Your task to perform on an android device: Clear the shopping cart on newegg.com. Search for jbl charge 4 on newegg.com, select the first entry, and add it to the cart. Image 0: 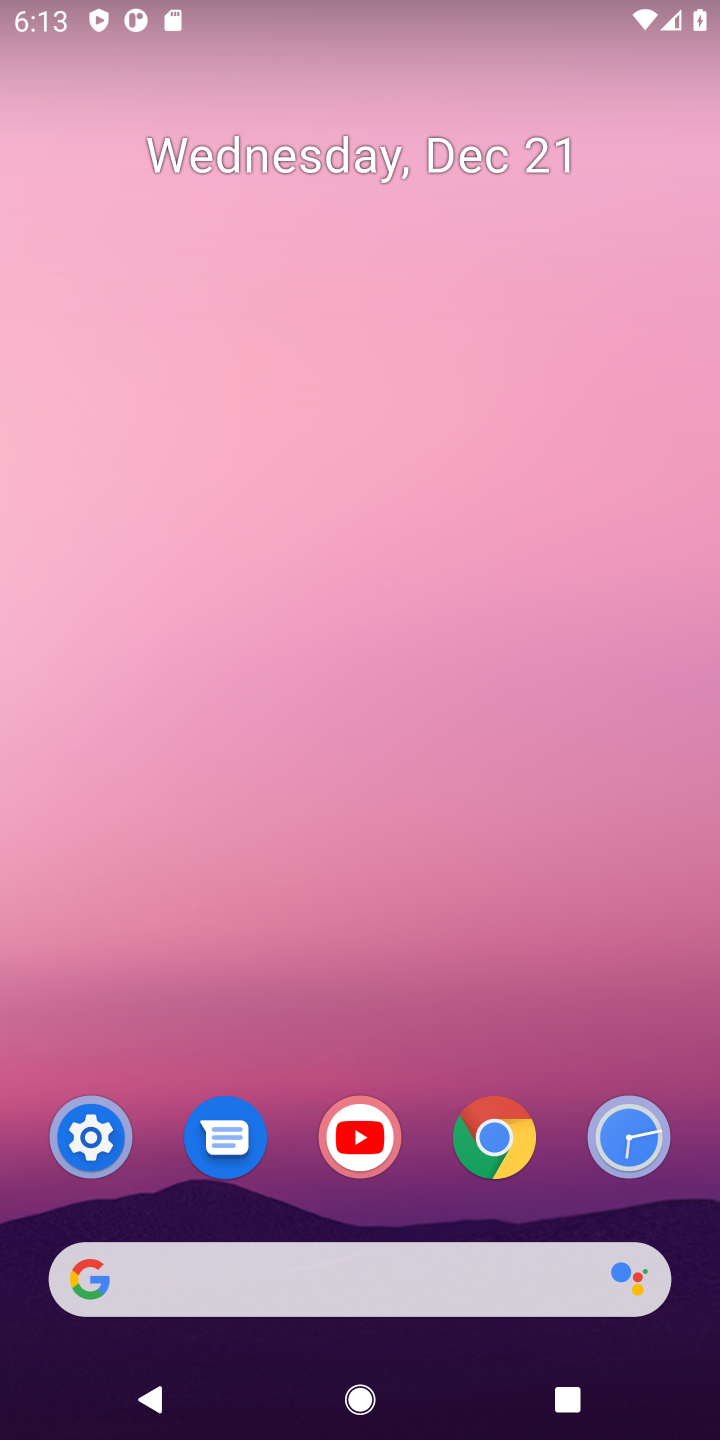
Step 0: click (486, 1142)
Your task to perform on an android device: Clear the shopping cart on newegg.com. Search for jbl charge 4 on newegg.com, select the first entry, and add it to the cart. Image 1: 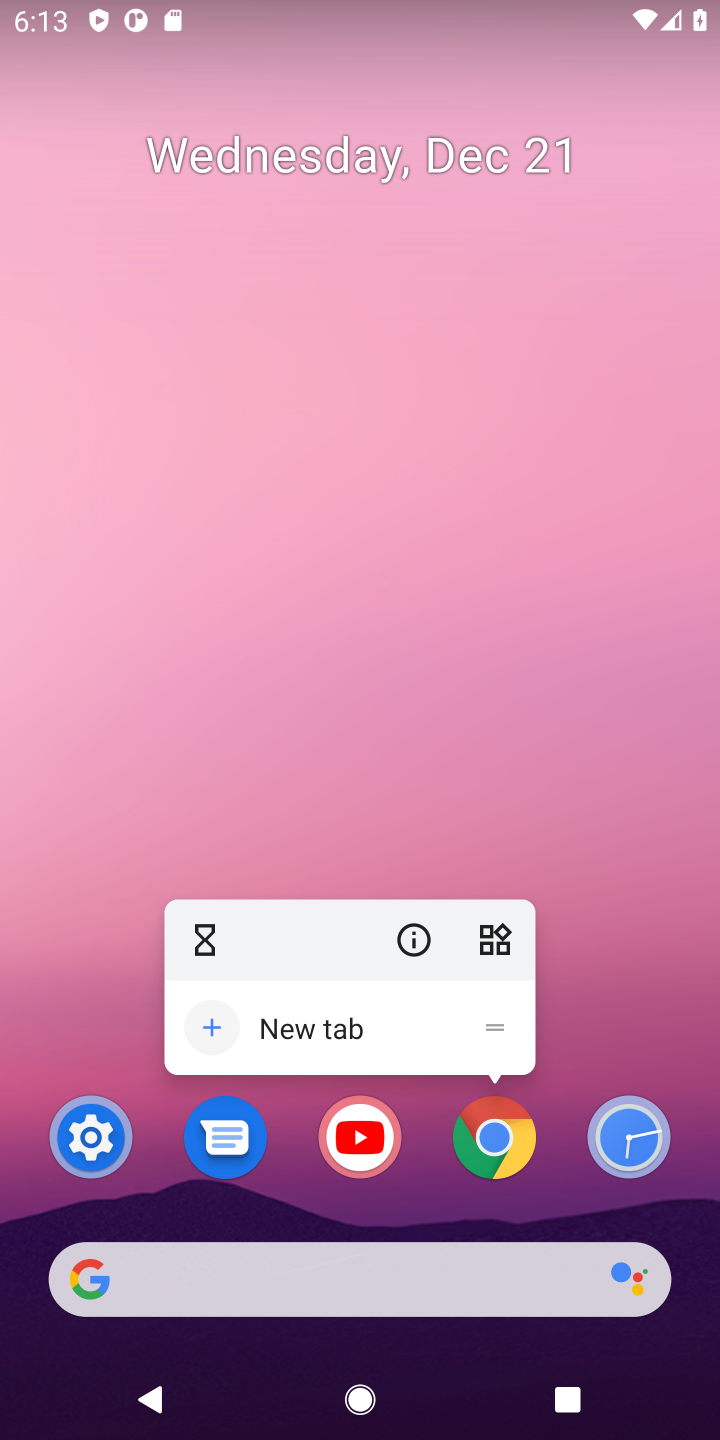
Step 1: click (486, 1142)
Your task to perform on an android device: Clear the shopping cart on newegg.com. Search for jbl charge 4 on newegg.com, select the first entry, and add it to the cart. Image 2: 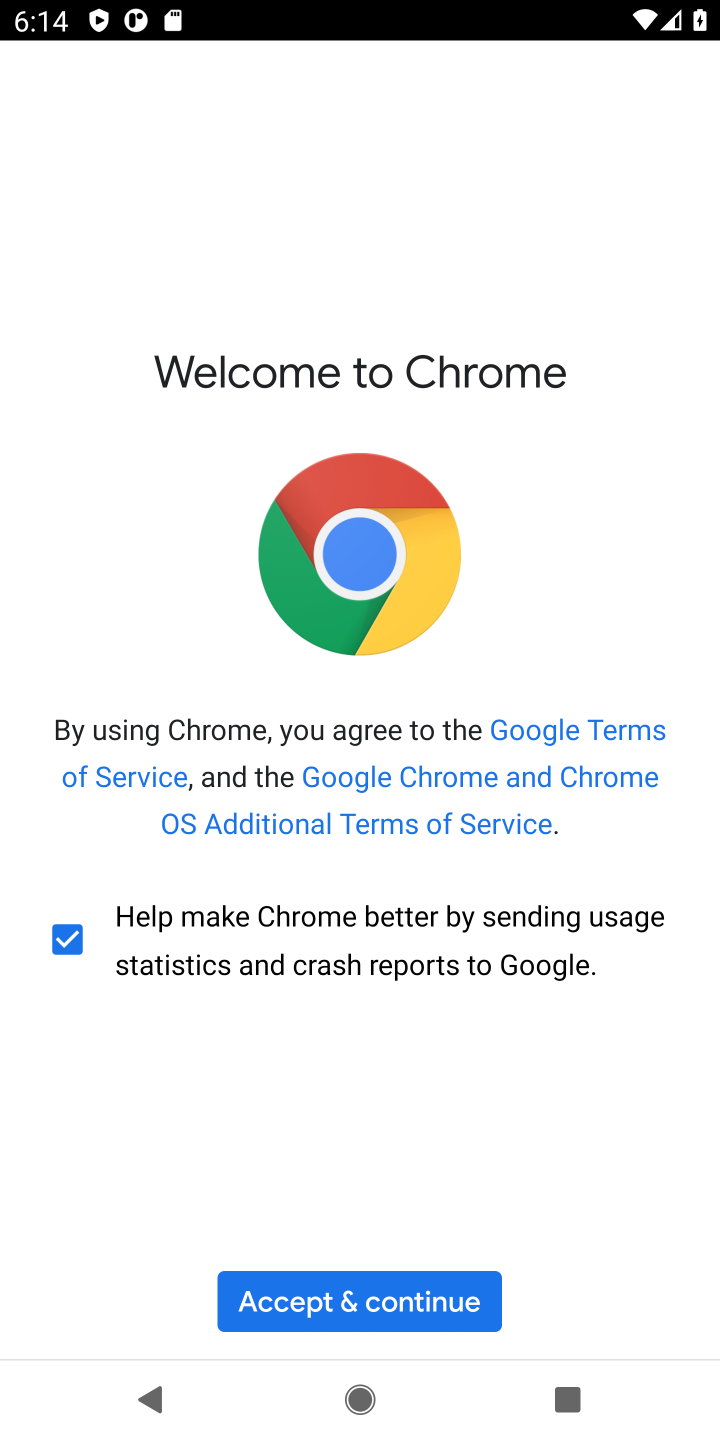
Step 2: click (362, 1305)
Your task to perform on an android device: Clear the shopping cart on newegg.com. Search for jbl charge 4 on newegg.com, select the first entry, and add it to the cart. Image 3: 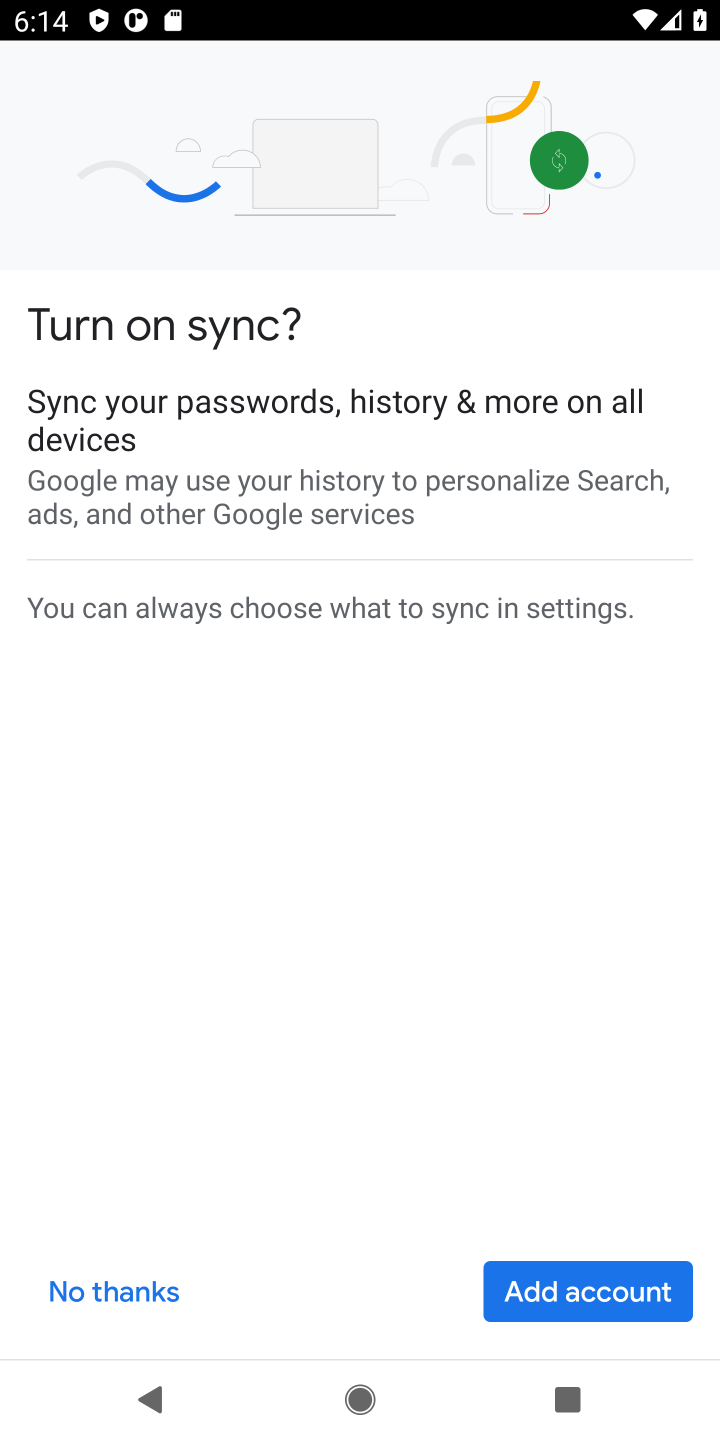
Step 3: click (79, 1298)
Your task to perform on an android device: Clear the shopping cart on newegg.com. Search for jbl charge 4 on newegg.com, select the first entry, and add it to the cart. Image 4: 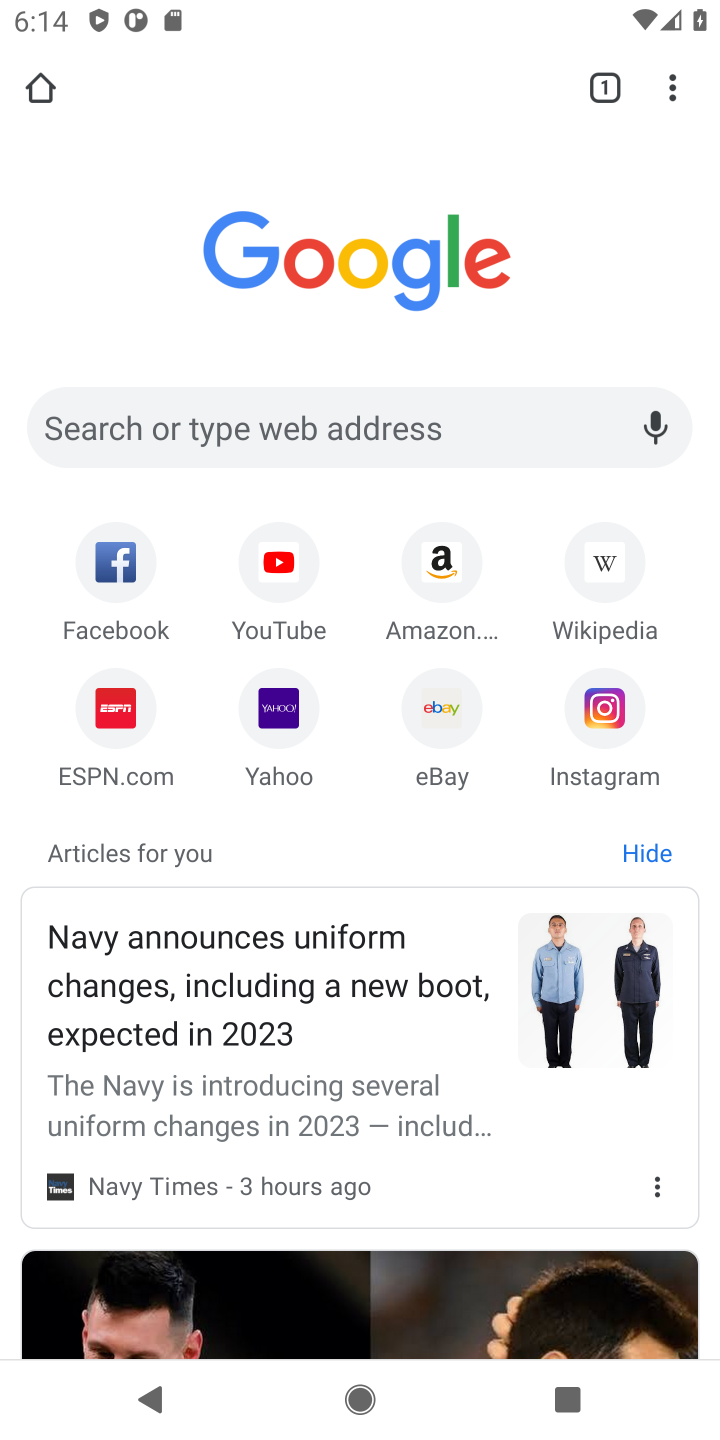
Step 4: click (241, 431)
Your task to perform on an android device: Clear the shopping cart on newegg.com. Search for jbl charge 4 on newegg.com, select the first entry, and add it to the cart. Image 5: 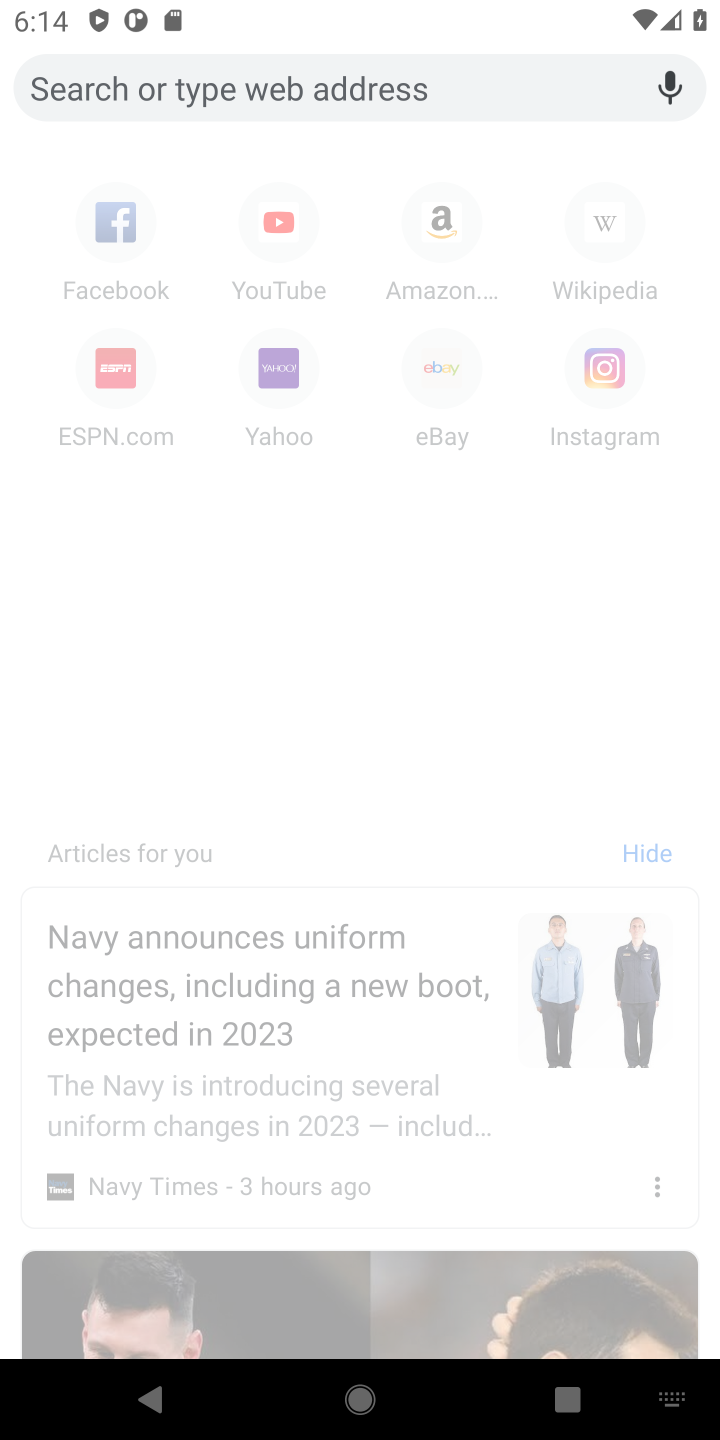
Step 5: type "newegg.com"
Your task to perform on an android device: Clear the shopping cart on newegg.com. Search for jbl charge 4 on newegg.com, select the first entry, and add it to the cart. Image 6: 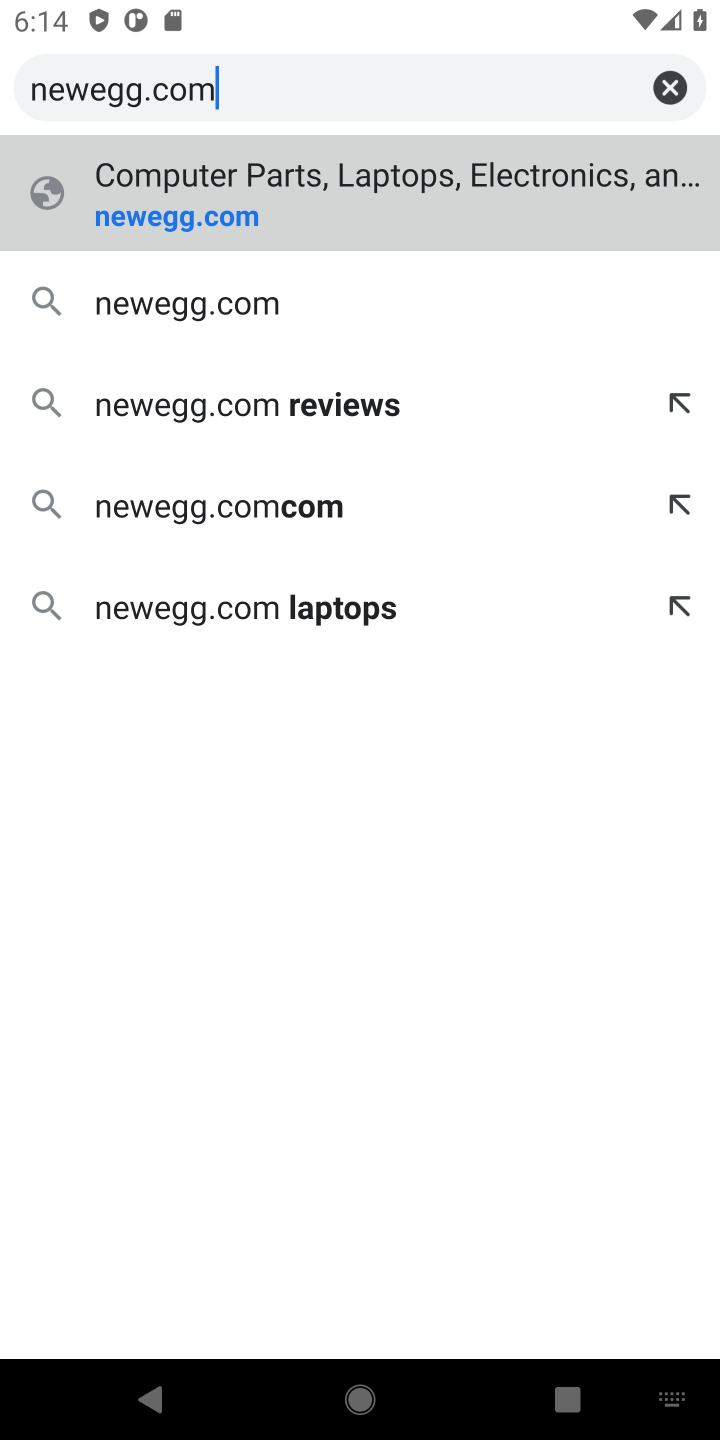
Step 6: click (205, 224)
Your task to perform on an android device: Clear the shopping cart on newegg.com. Search for jbl charge 4 on newegg.com, select the first entry, and add it to the cart. Image 7: 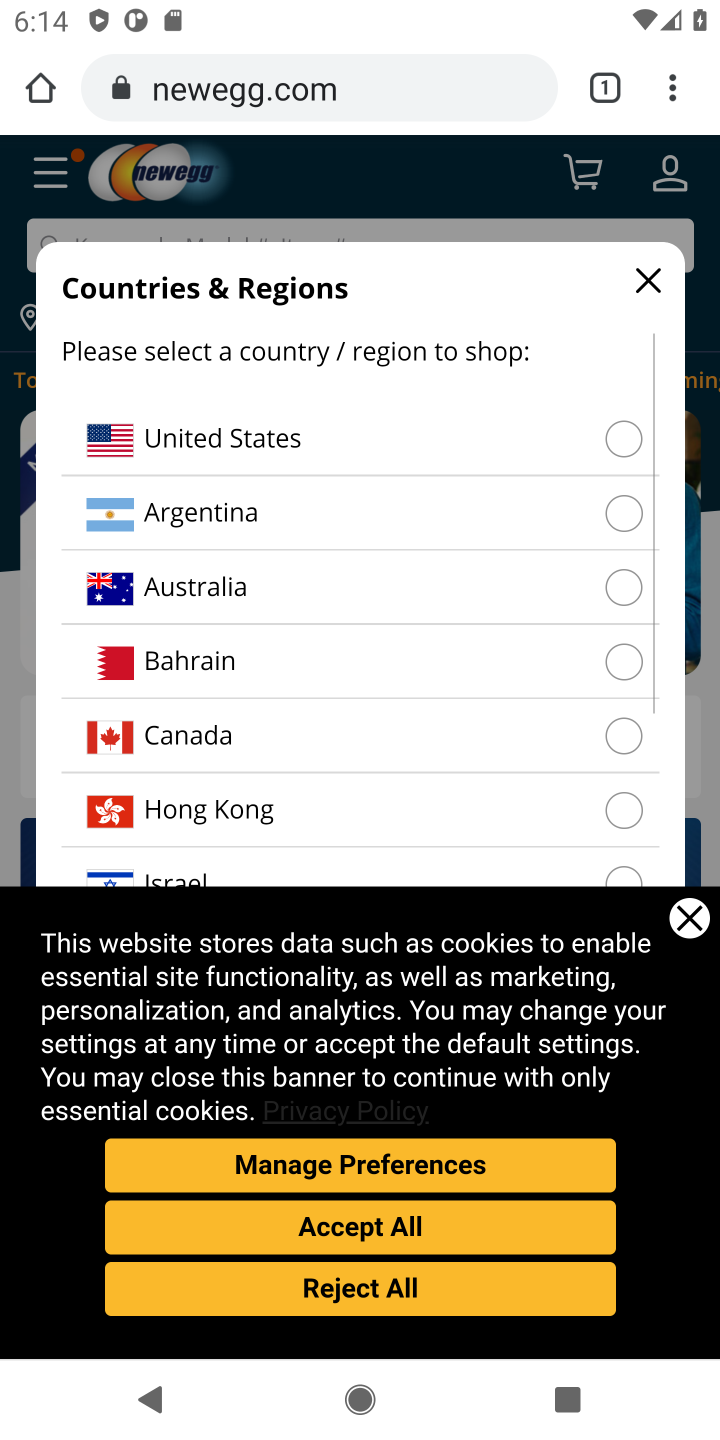
Step 7: click (691, 940)
Your task to perform on an android device: Clear the shopping cart on newegg.com. Search for jbl charge 4 on newegg.com, select the first entry, and add it to the cart. Image 8: 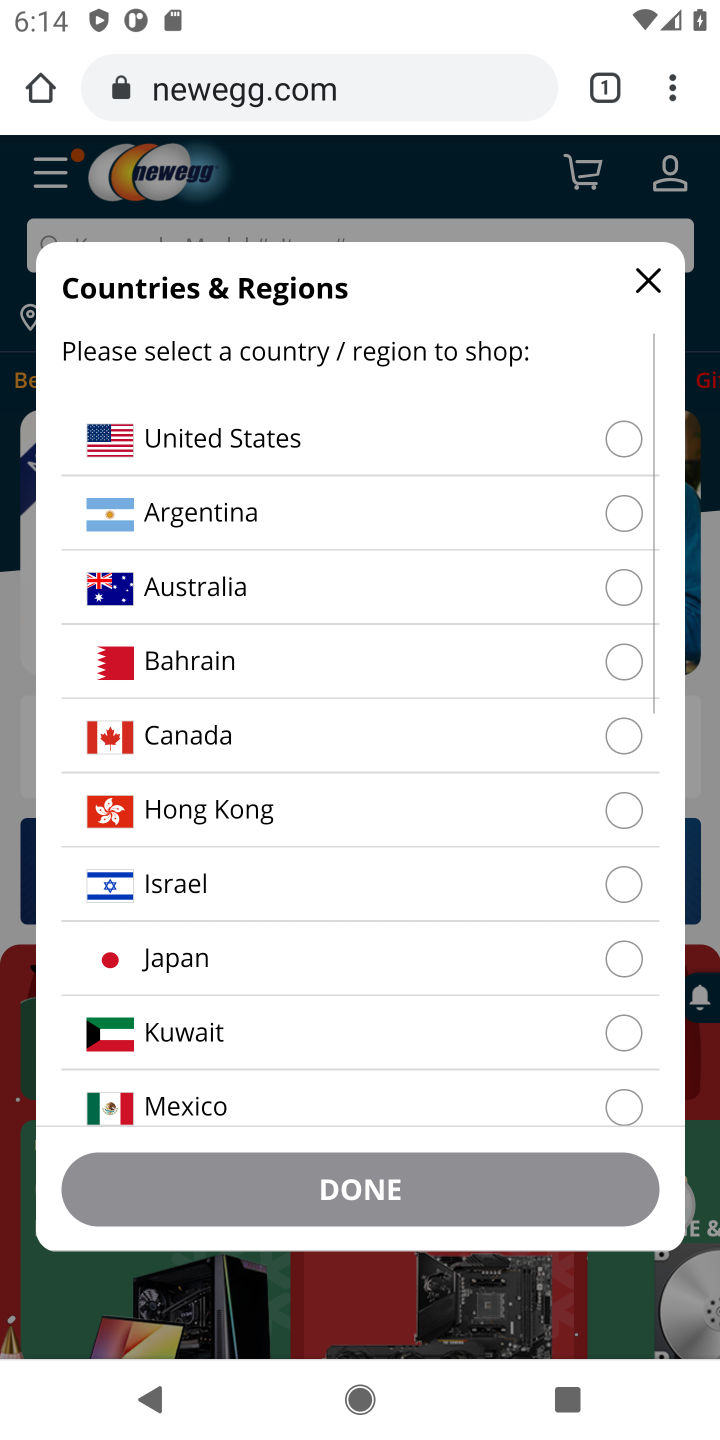
Step 8: click (162, 440)
Your task to perform on an android device: Clear the shopping cart on newegg.com. Search for jbl charge 4 on newegg.com, select the first entry, and add it to the cart. Image 9: 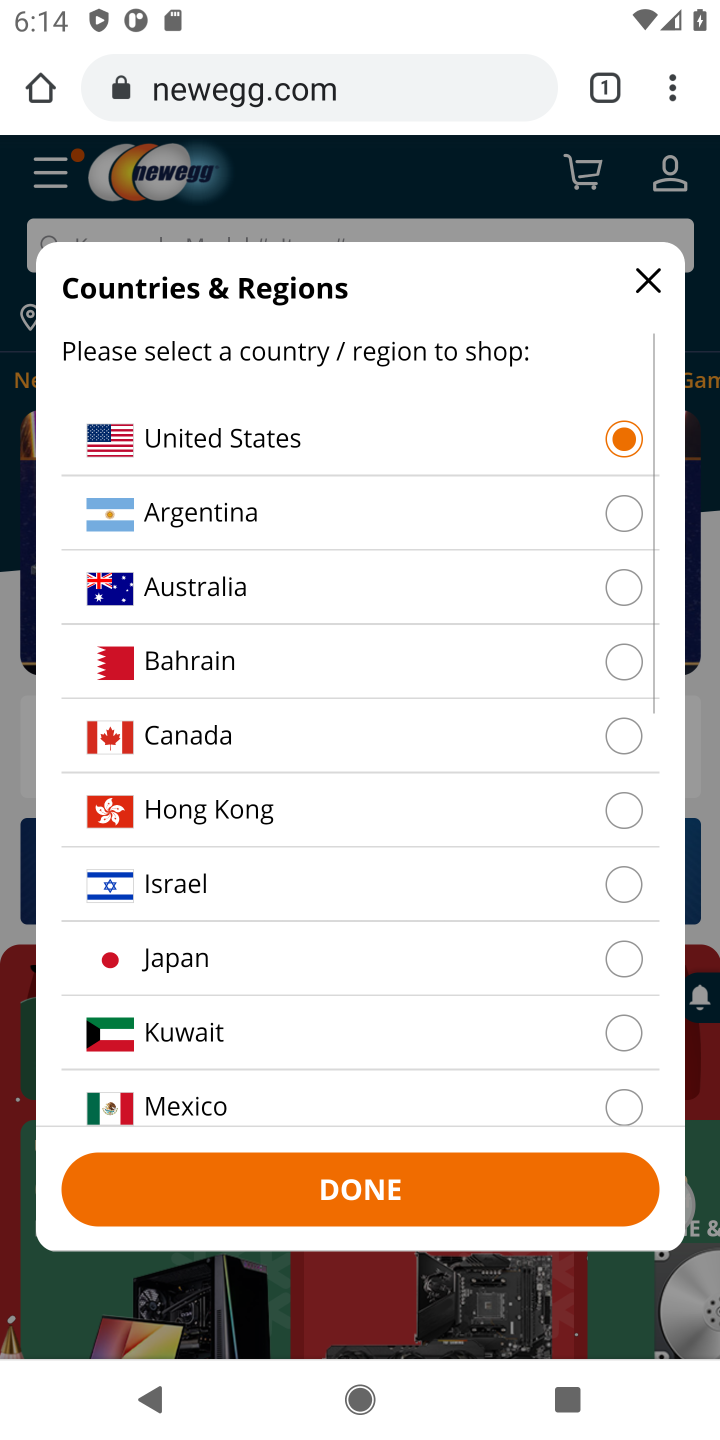
Step 9: click (323, 1189)
Your task to perform on an android device: Clear the shopping cart on newegg.com. Search for jbl charge 4 on newegg.com, select the first entry, and add it to the cart. Image 10: 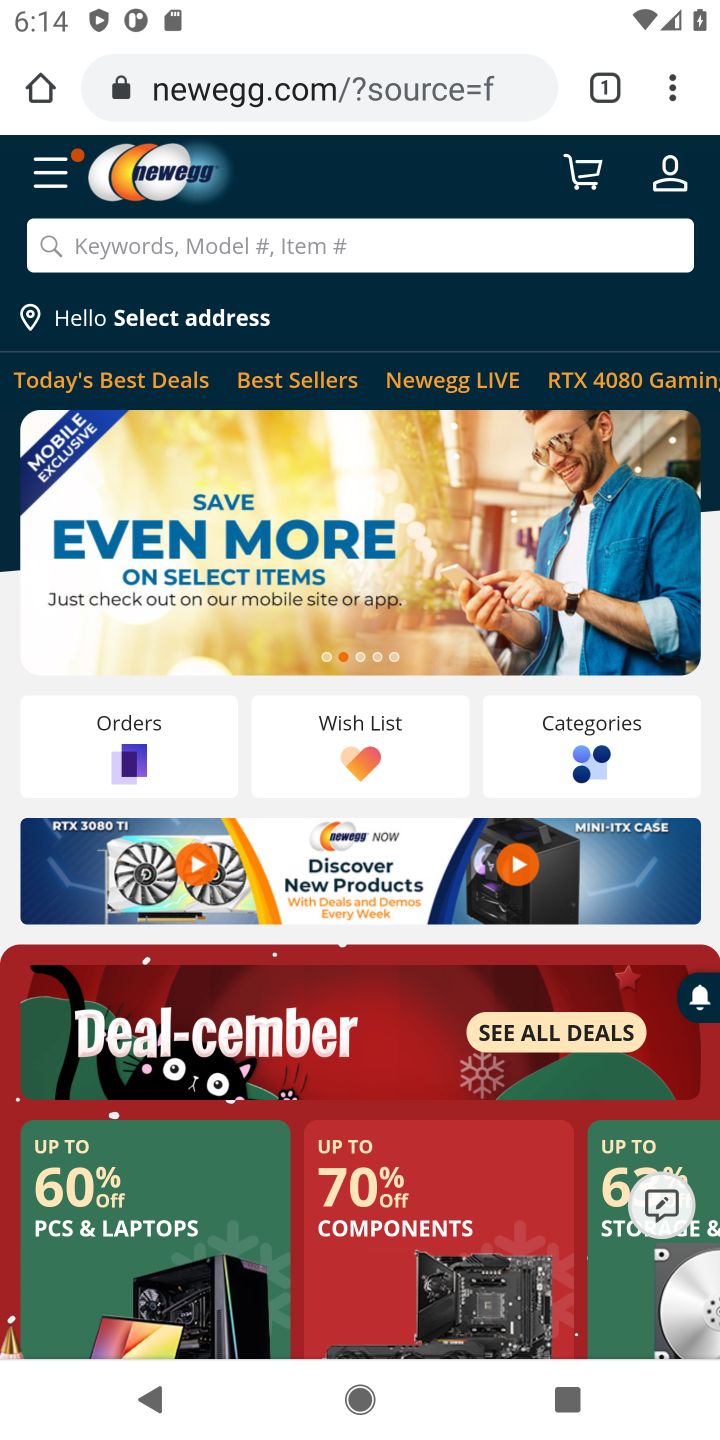
Step 10: click (589, 179)
Your task to perform on an android device: Clear the shopping cart on newegg.com. Search for jbl charge 4 on newegg.com, select the first entry, and add it to the cart. Image 11: 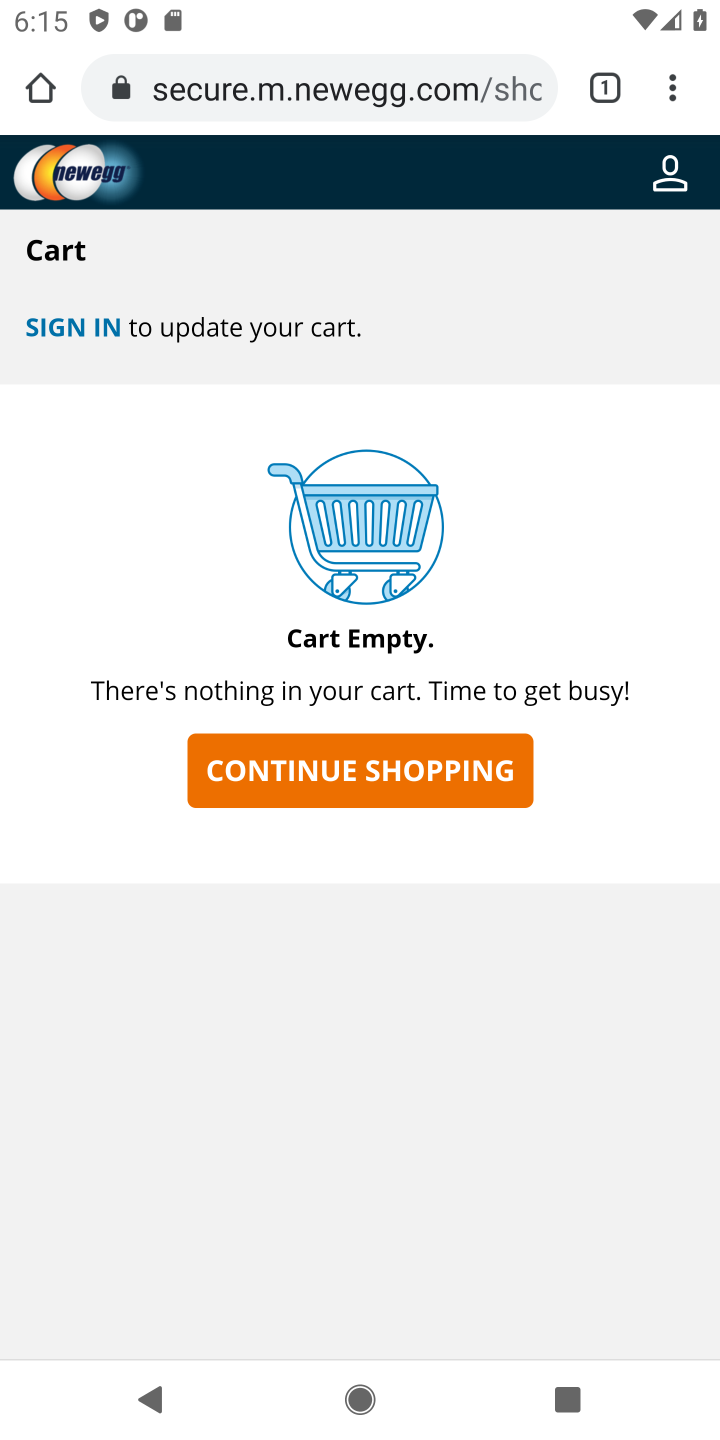
Step 11: click (302, 798)
Your task to perform on an android device: Clear the shopping cart on newegg.com. Search for jbl charge 4 on newegg.com, select the first entry, and add it to the cart. Image 12: 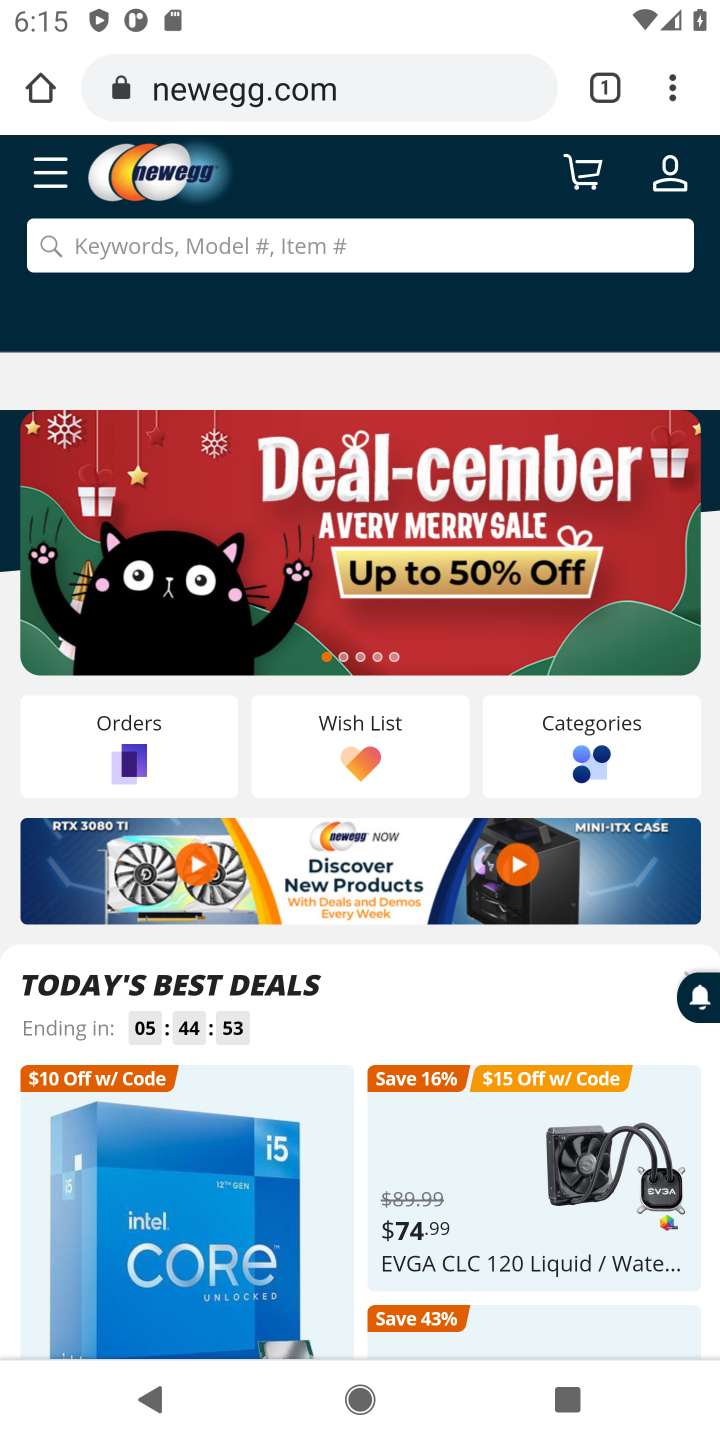
Step 12: click (176, 252)
Your task to perform on an android device: Clear the shopping cart on newegg.com. Search for jbl charge 4 on newegg.com, select the first entry, and add it to the cart. Image 13: 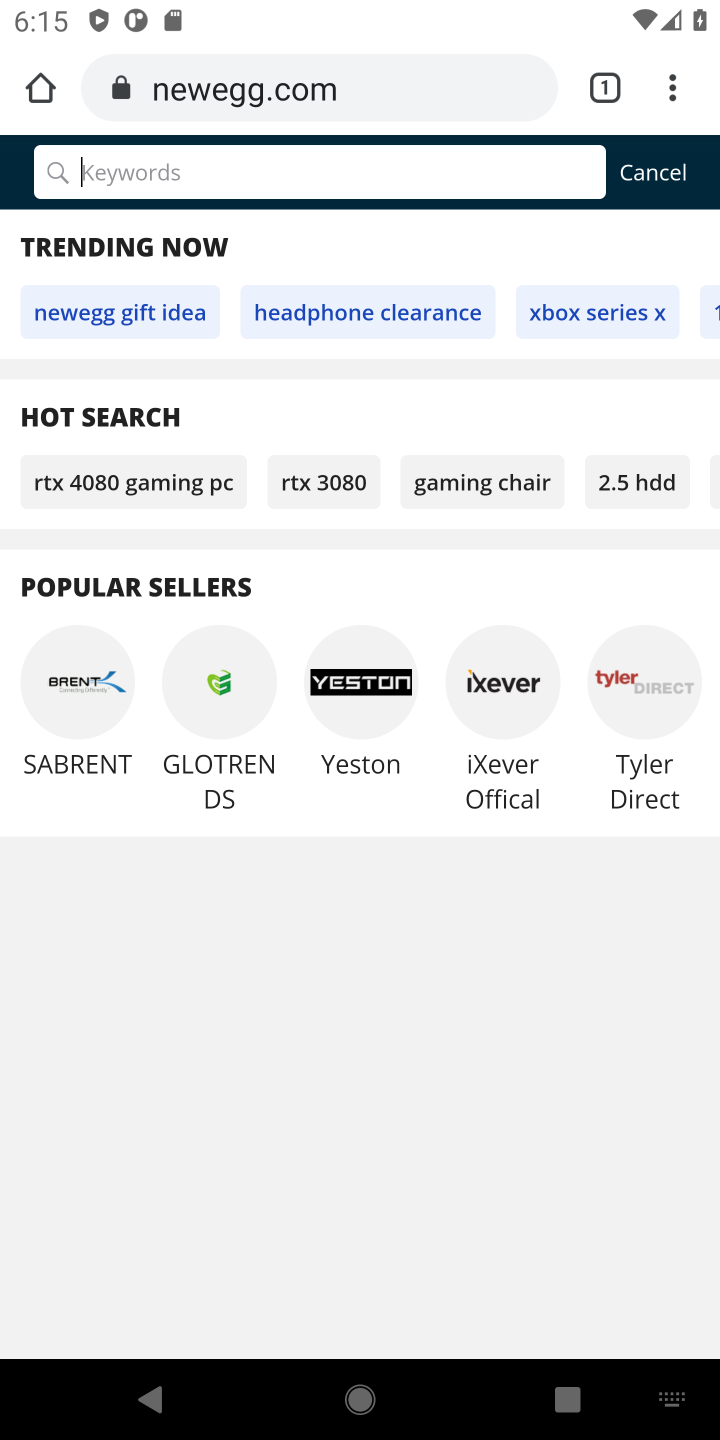
Step 13: type "jbl charge 4 "
Your task to perform on an android device: Clear the shopping cart on newegg.com. Search for jbl charge 4 on newegg.com, select the first entry, and add it to the cart. Image 14: 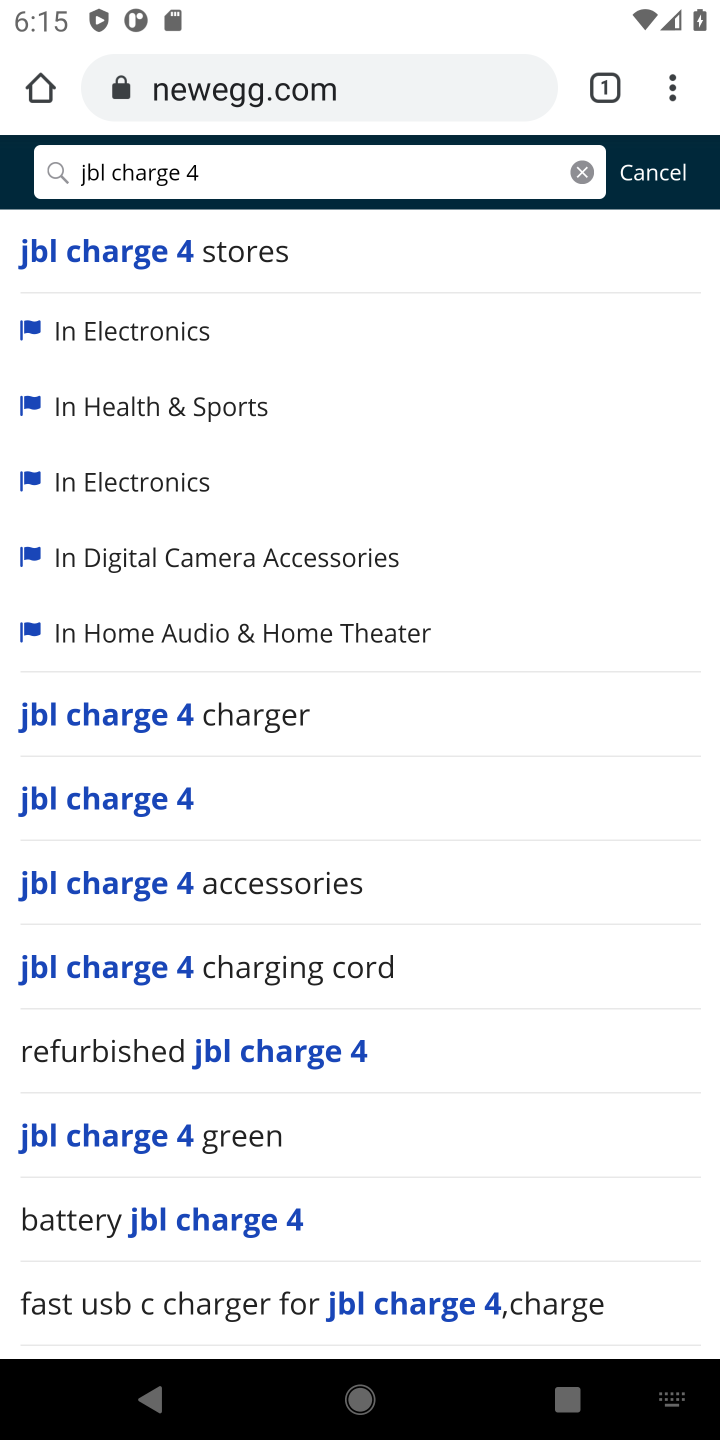
Step 14: click (102, 788)
Your task to perform on an android device: Clear the shopping cart on newegg.com. Search for jbl charge 4 on newegg.com, select the first entry, and add it to the cart. Image 15: 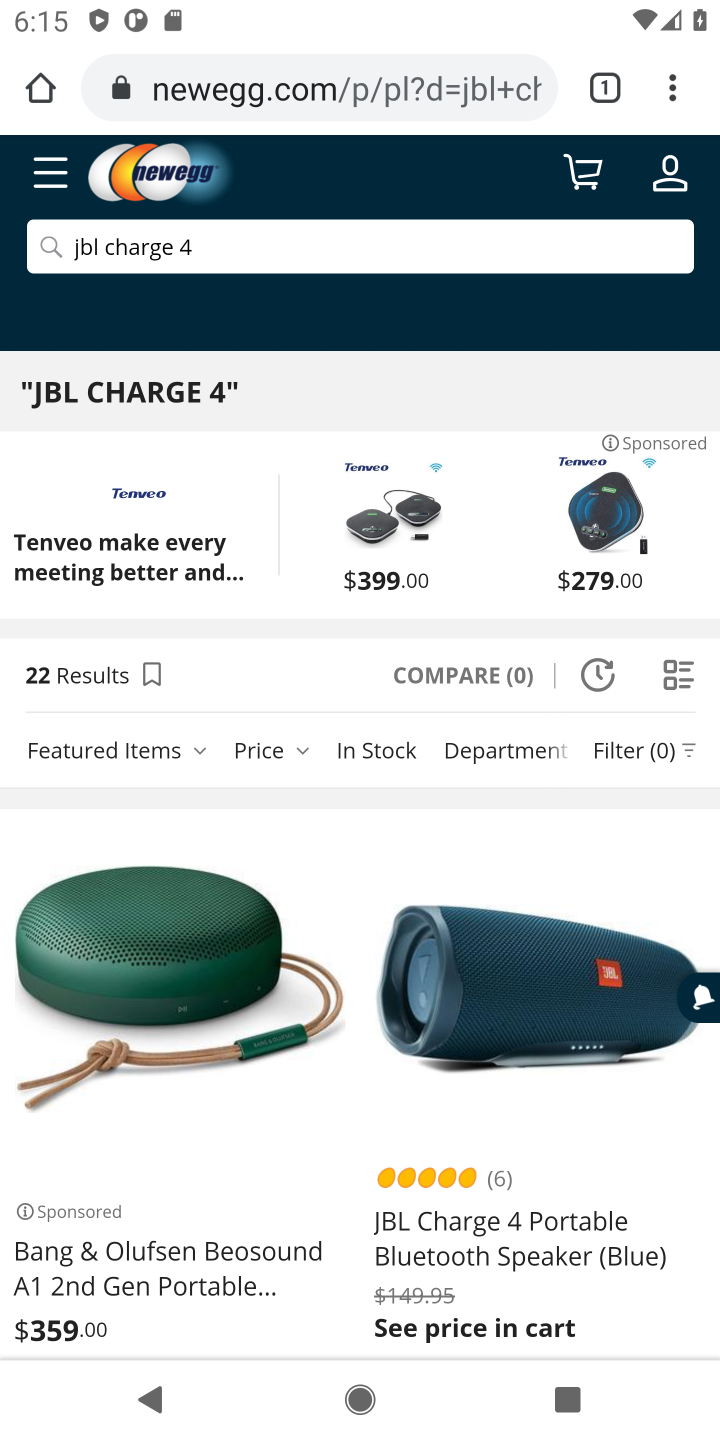
Step 15: drag from (302, 1092) to (311, 646)
Your task to perform on an android device: Clear the shopping cart on newegg.com. Search for jbl charge 4 on newegg.com, select the first entry, and add it to the cart. Image 16: 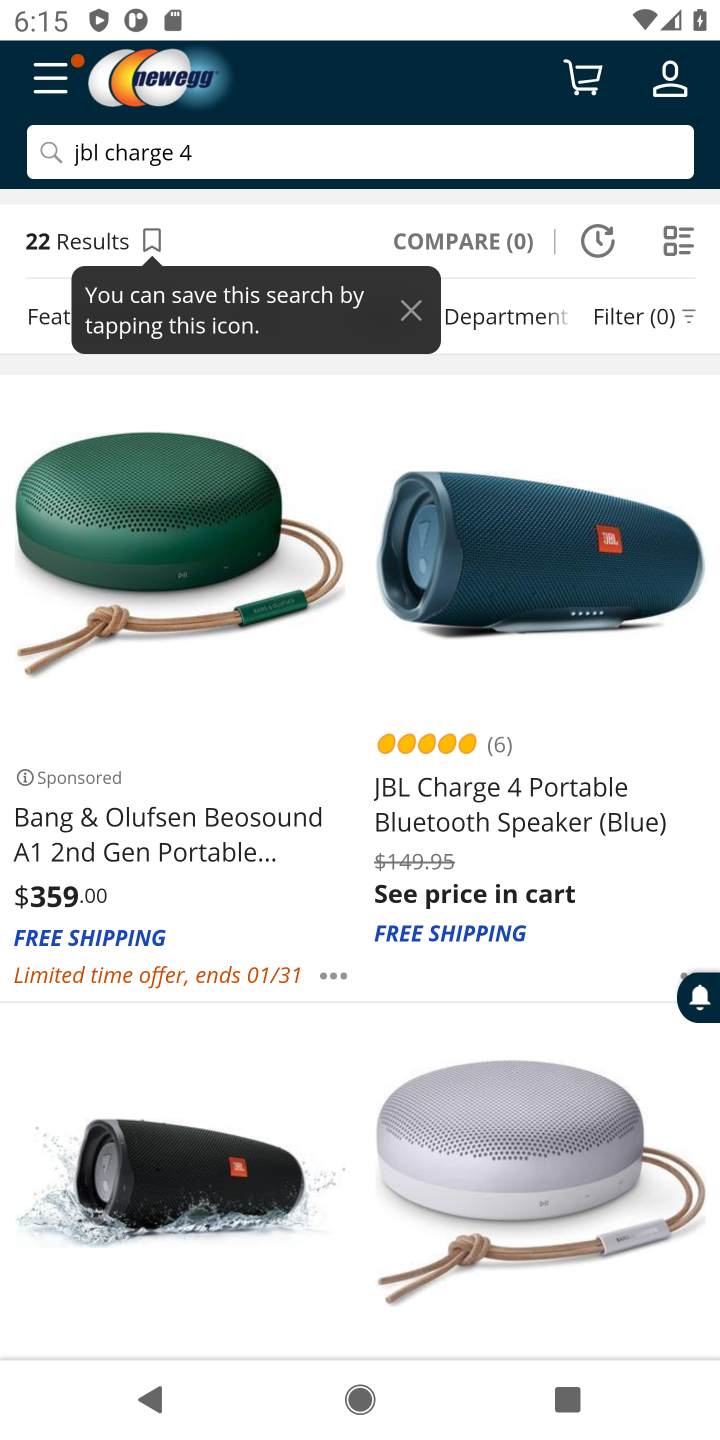
Step 16: click (178, 852)
Your task to perform on an android device: Clear the shopping cart on newegg.com. Search for jbl charge 4 on newegg.com, select the first entry, and add it to the cart. Image 17: 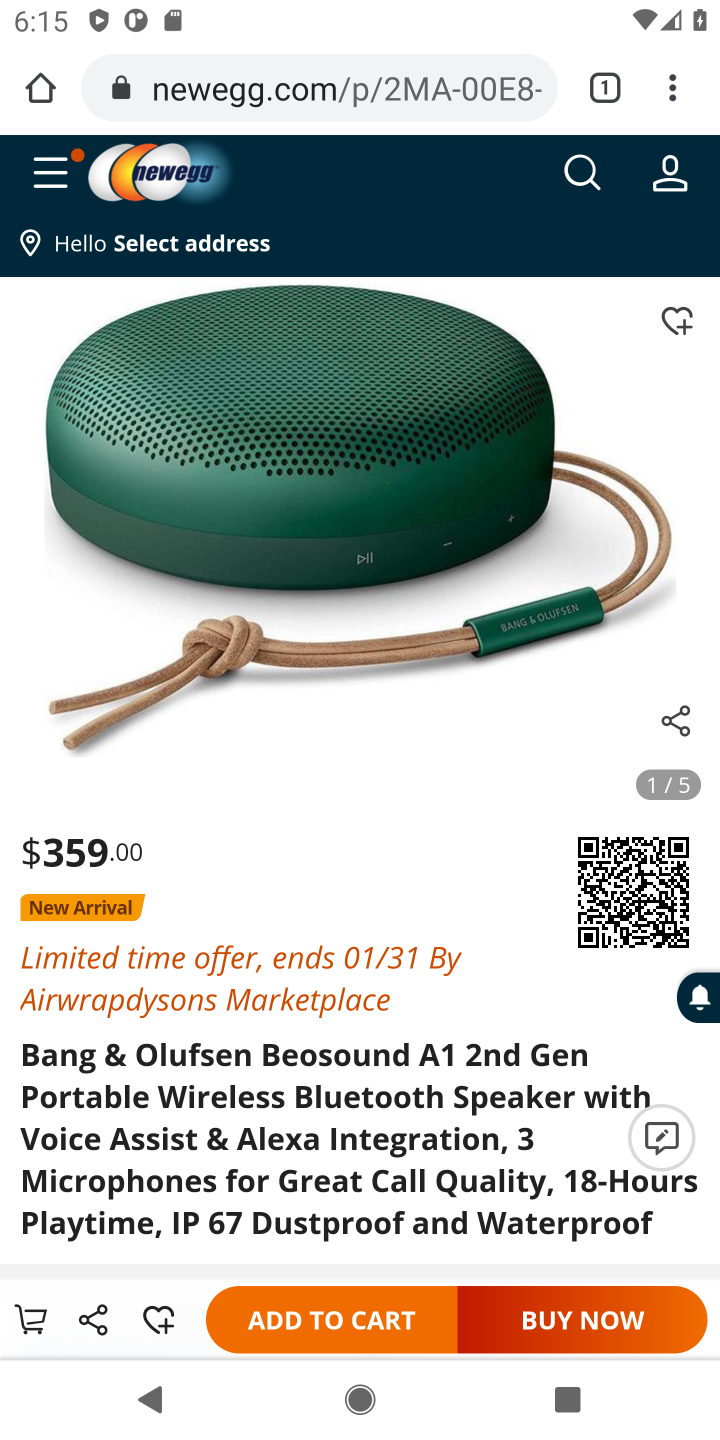
Step 17: task complete